Your task to perform on an android device: Open network settings Image 0: 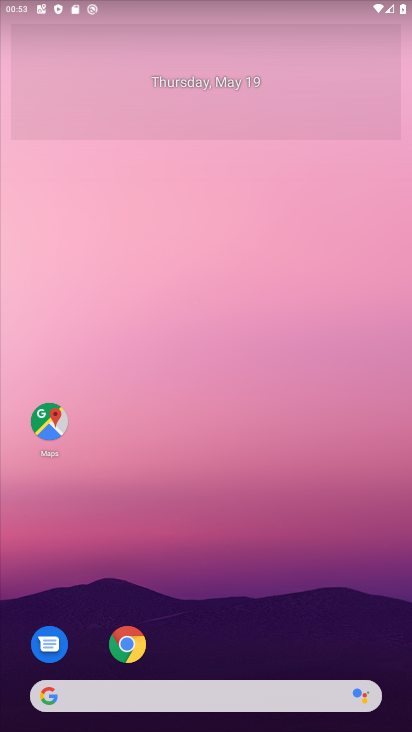
Step 0: drag from (342, 639) to (325, 133)
Your task to perform on an android device: Open network settings Image 1: 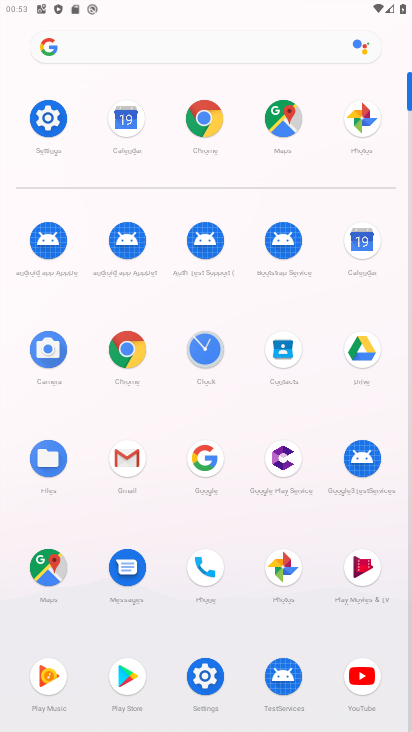
Step 1: click (209, 672)
Your task to perform on an android device: Open network settings Image 2: 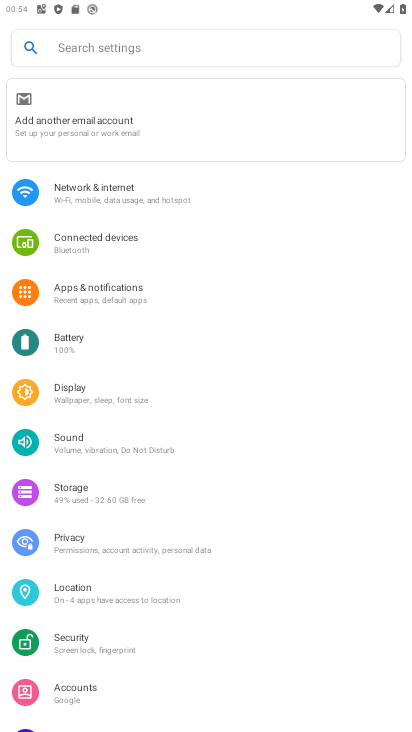
Step 2: click (99, 186)
Your task to perform on an android device: Open network settings Image 3: 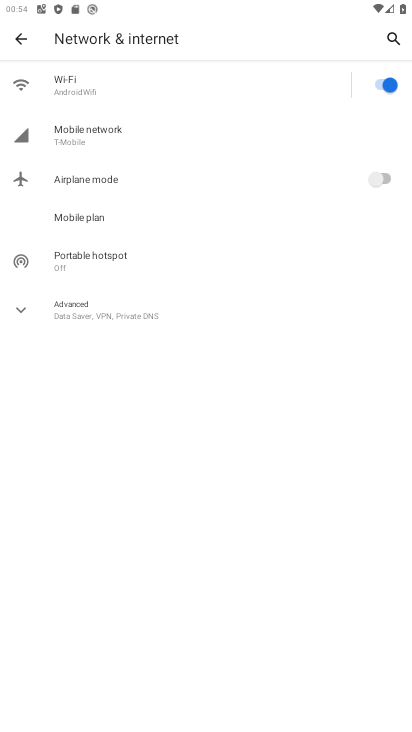
Step 3: click (108, 141)
Your task to perform on an android device: Open network settings Image 4: 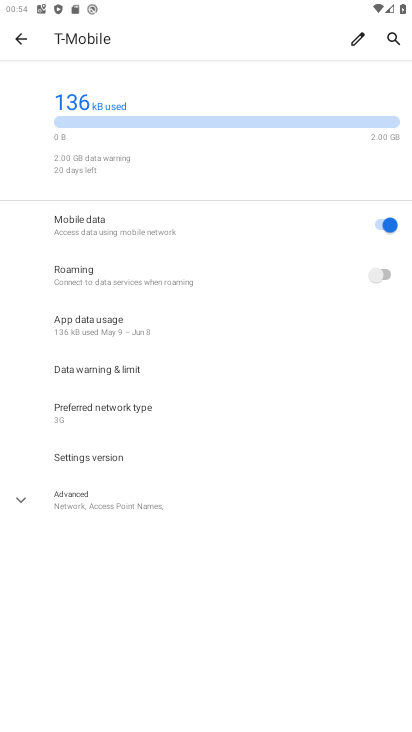
Step 4: task complete